Your task to perform on an android device: turn off notifications settings in the gmail app Image 0: 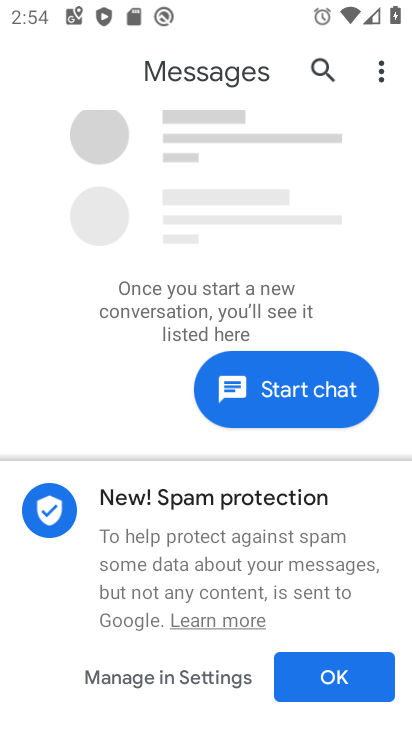
Step 0: press home button
Your task to perform on an android device: turn off notifications settings in the gmail app Image 1: 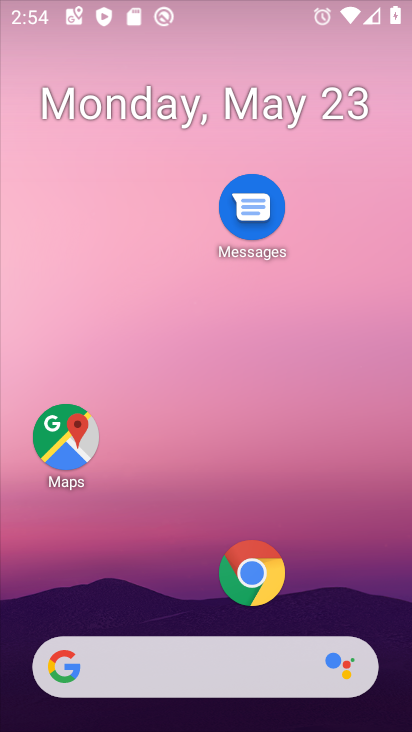
Step 1: drag from (356, 609) to (337, 0)
Your task to perform on an android device: turn off notifications settings in the gmail app Image 2: 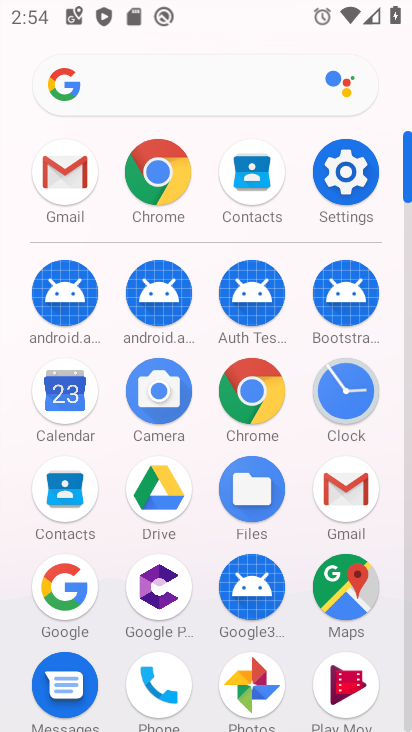
Step 2: click (337, 487)
Your task to perform on an android device: turn off notifications settings in the gmail app Image 3: 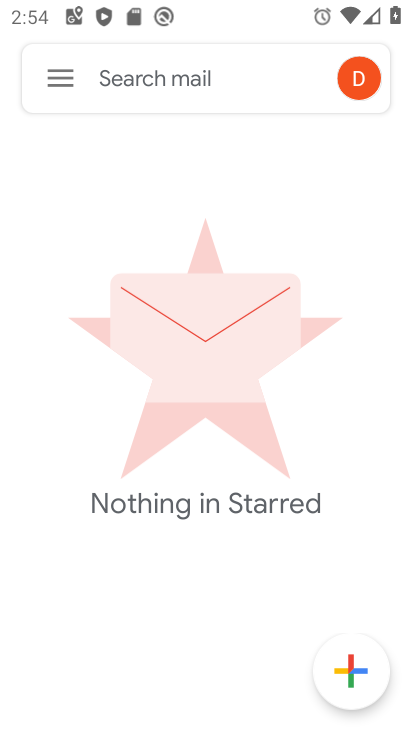
Step 3: click (35, 73)
Your task to perform on an android device: turn off notifications settings in the gmail app Image 4: 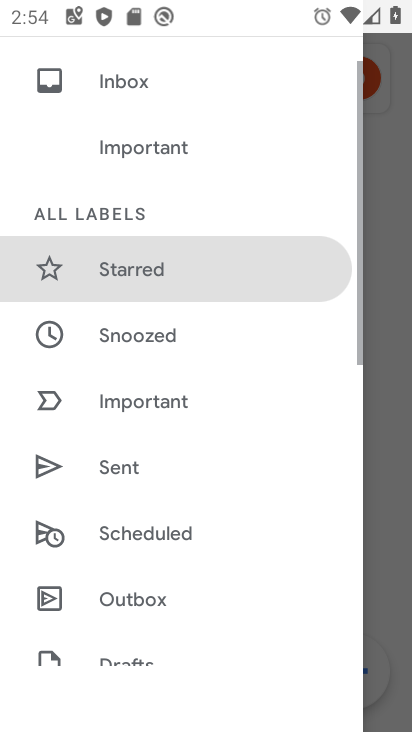
Step 4: drag from (184, 356) to (300, 28)
Your task to perform on an android device: turn off notifications settings in the gmail app Image 5: 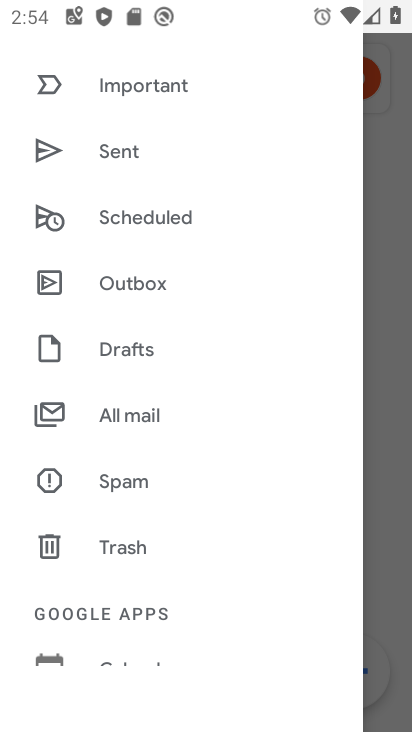
Step 5: drag from (210, 669) to (242, 364)
Your task to perform on an android device: turn off notifications settings in the gmail app Image 6: 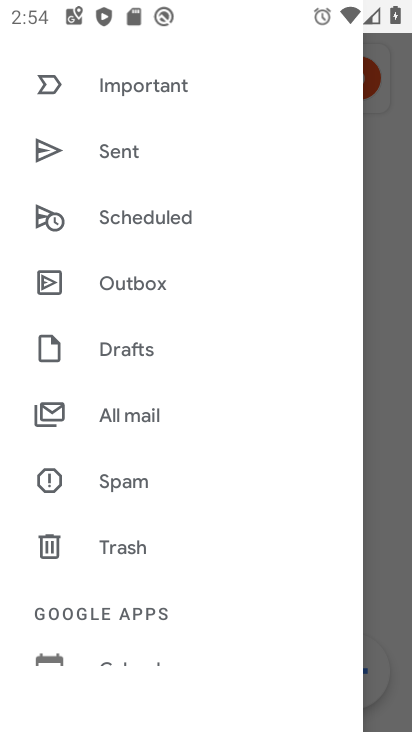
Step 6: drag from (302, 649) to (293, 119)
Your task to perform on an android device: turn off notifications settings in the gmail app Image 7: 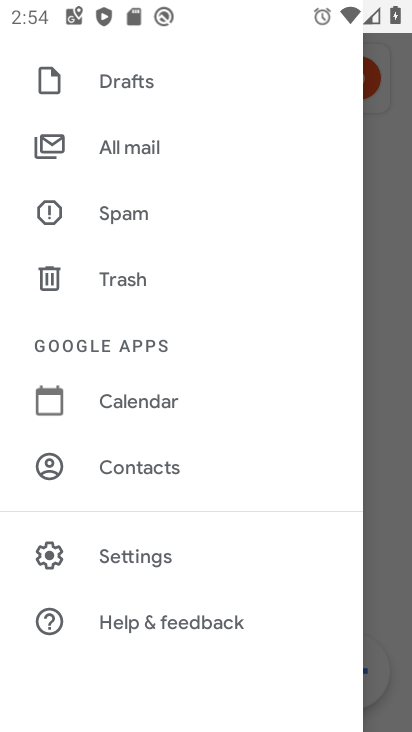
Step 7: click (178, 545)
Your task to perform on an android device: turn off notifications settings in the gmail app Image 8: 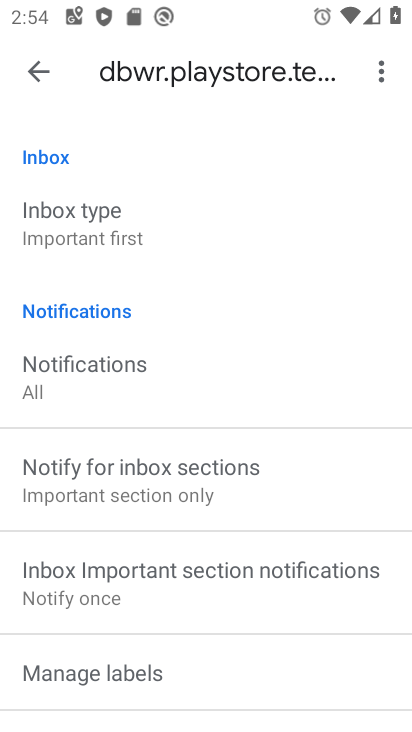
Step 8: drag from (228, 645) to (226, 209)
Your task to perform on an android device: turn off notifications settings in the gmail app Image 9: 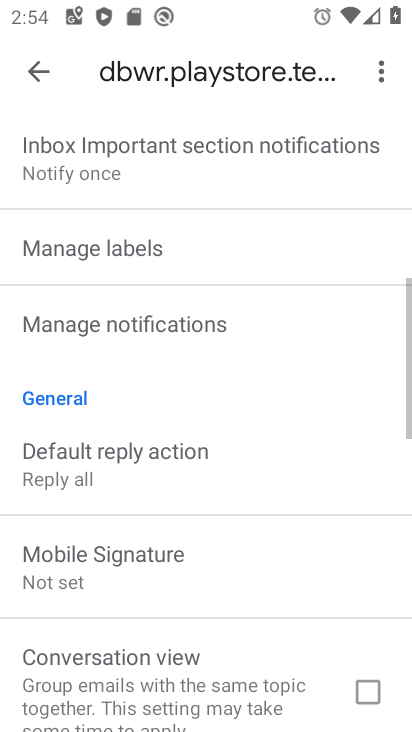
Step 9: click (189, 326)
Your task to perform on an android device: turn off notifications settings in the gmail app Image 10: 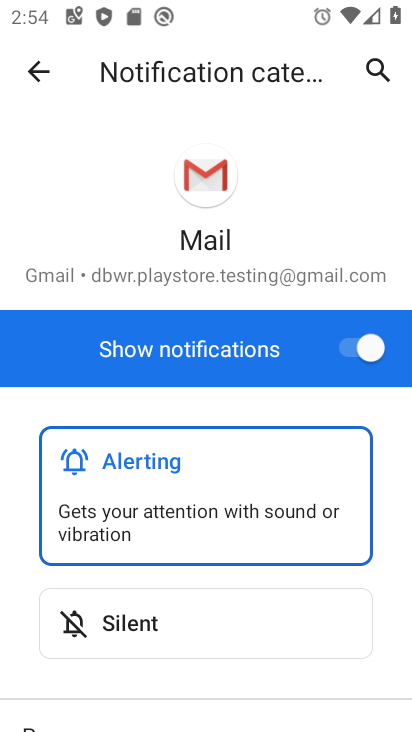
Step 10: click (353, 346)
Your task to perform on an android device: turn off notifications settings in the gmail app Image 11: 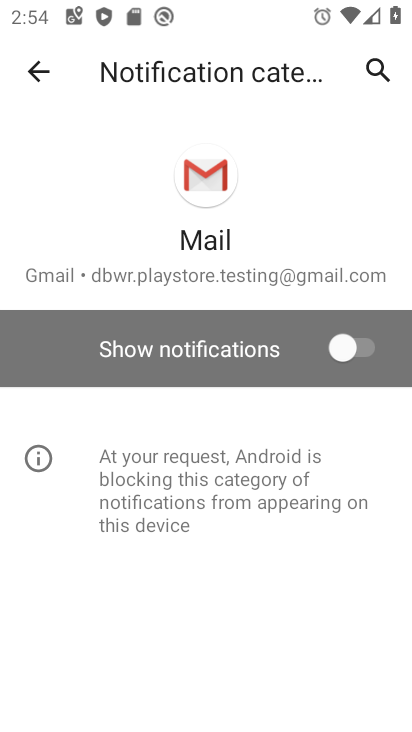
Step 11: task complete